Your task to perform on an android device: Go to privacy settings Image 0: 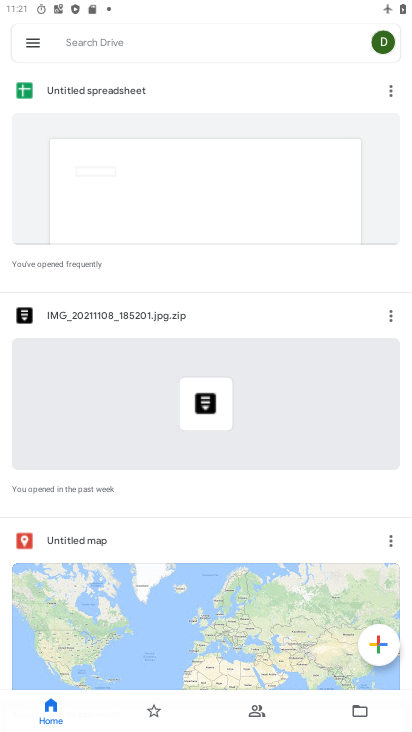
Step 0: press home button
Your task to perform on an android device: Go to privacy settings Image 1: 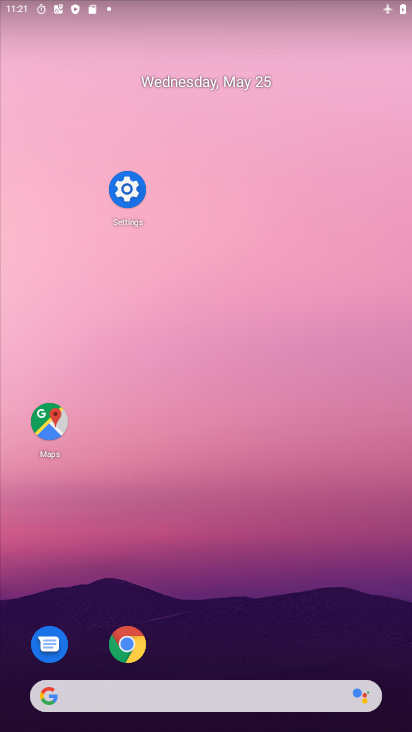
Step 1: click (120, 648)
Your task to perform on an android device: Go to privacy settings Image 2: 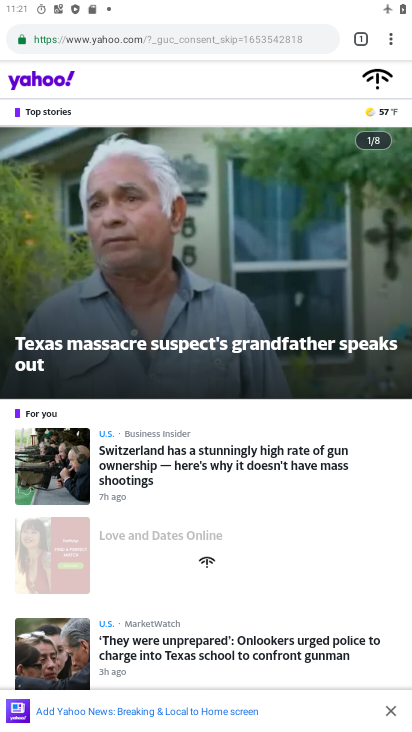
Step 2: click (386, 40)
Your task to perform on an android device: Go to privacy settings Image 3: 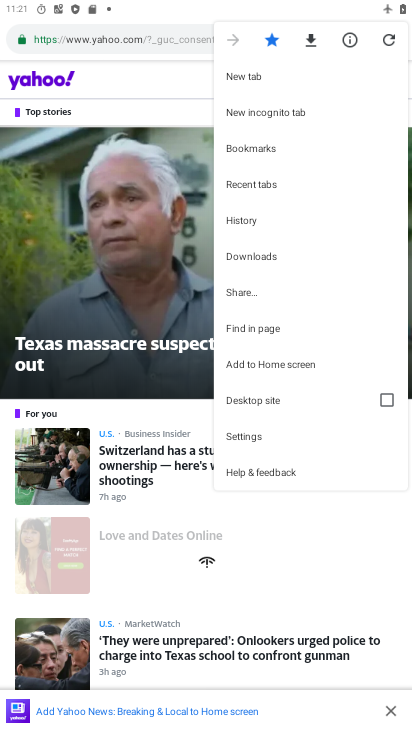
Step 3: click (256, 433)
Your task to perform on an android device: Go to privacy settings Image 4: 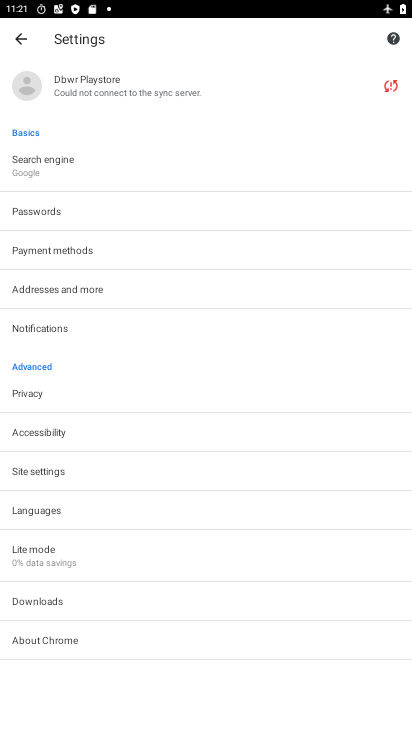
Step 4: click (33, 393)
Your task to perform on an android device: Go to privacy settings Image 5: 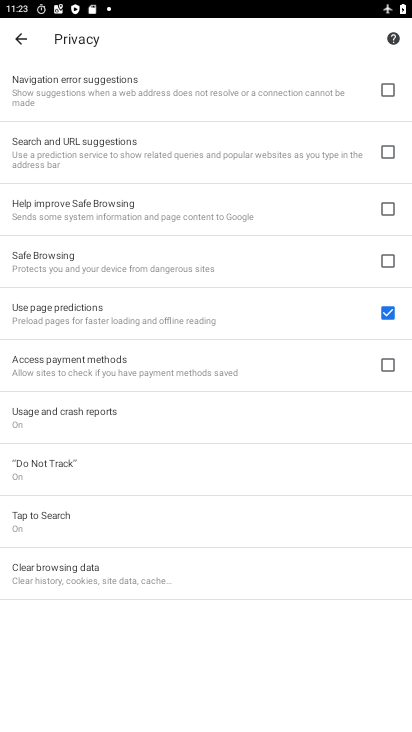
Step 5: task complete